Your task to perform on an android device: turn on translation in the chrome app Image 0: 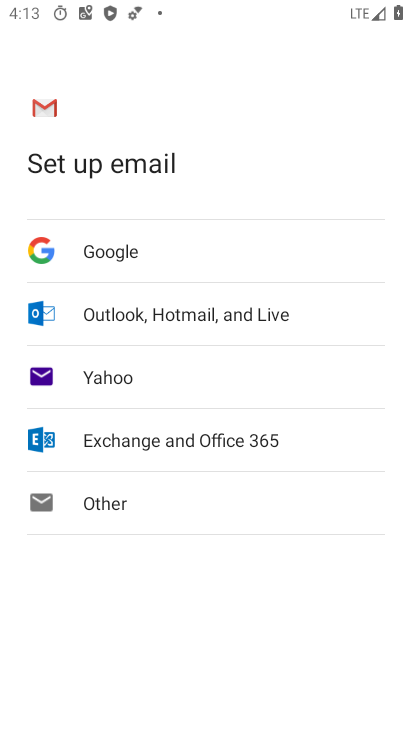
Step 0: press home button
Your task to perform on an android device: turn on translation in the chrome app Image 1: 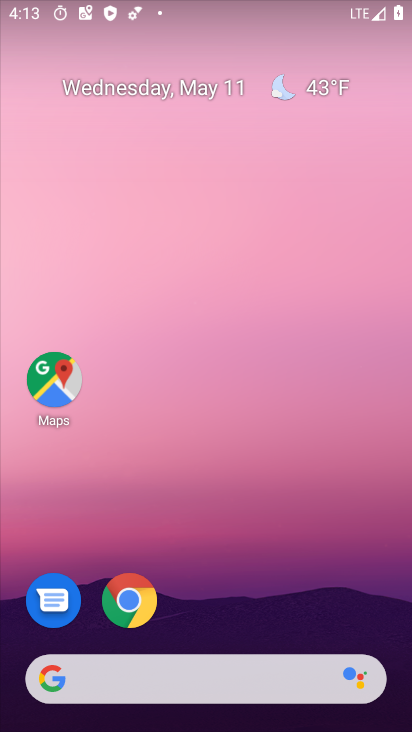
Step 1: click (139, 601)
Your task to perform on an android device: turn on translation in the chrome app Image 2: 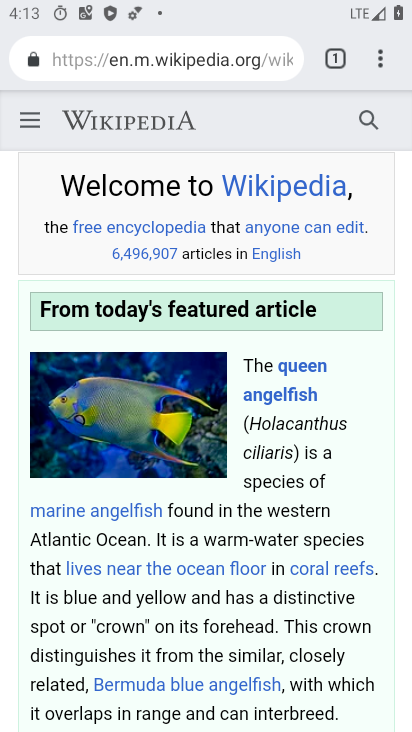
Step 2: drag from (379, 61) to (162, 637)
Your task to perform on an android device: turn on translation in the chrome app Image 3: 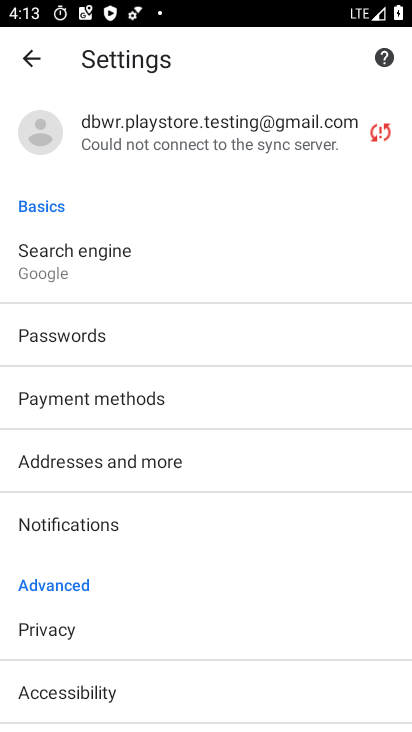
Step 3: drag from (162, 637) to (158, 197)
Your task to perform on an android device: turn on translation in the chrome app Image 4: 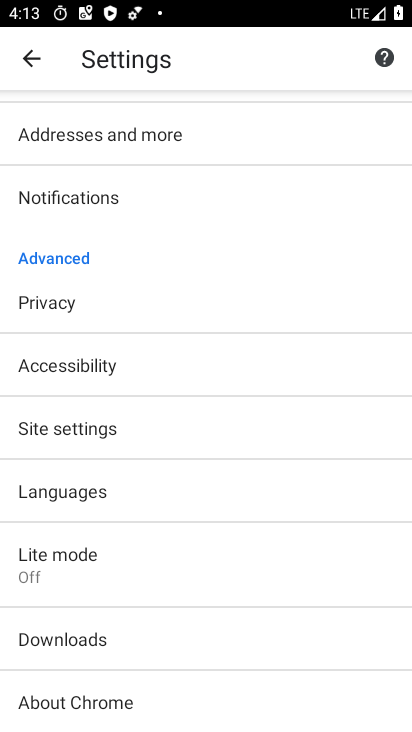
Step 4: click (67, 490)
Your task to perform on an android device: turn on translation in the chrome app Image 5: 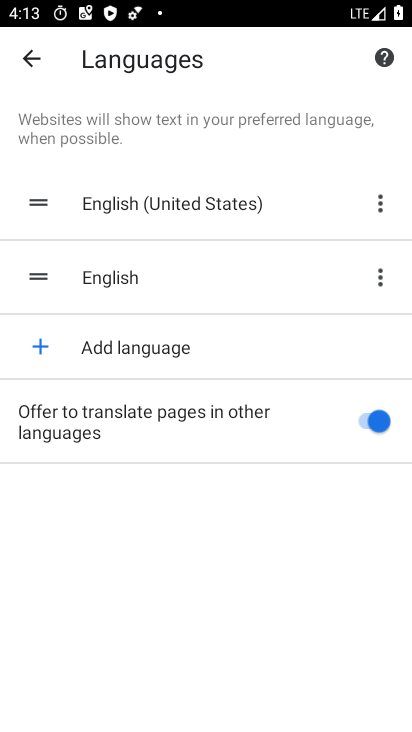
Step 5: task complete